Your task to perform on an android device: delete a single message in the gmail app Image 0: 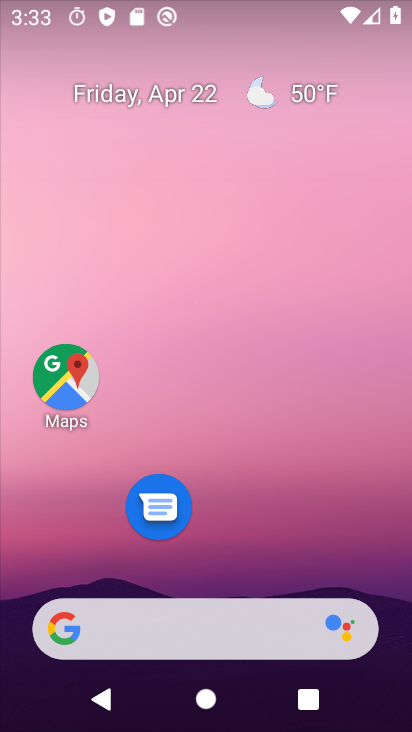
Step 0: drag from (136, 442) to (205, 119)
Your task to perform on an android device: delete a single message in the gmail app Image 1: 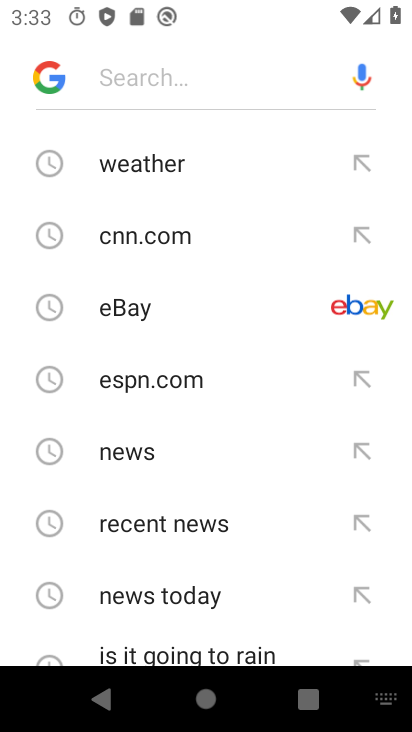
Step 1: press home button
Your task to perform on an android device: delete a single message in the gmail app Image 2: 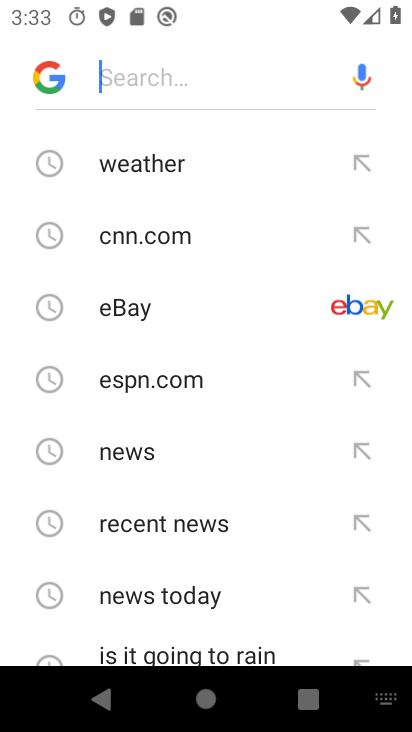
Step 2: press home button
Your task to perform on an android device: delete a single message in the gmail app Image 3: 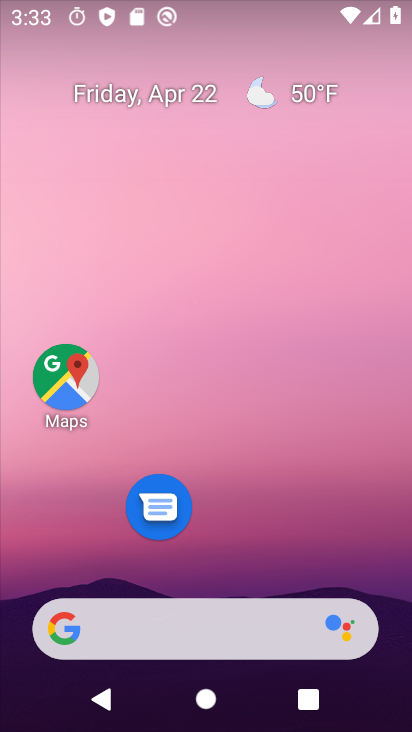
Step 3: drag from (172, 552) to (271, 110)
Your task to perform on an android device: delete a single message in the gmail app Image 4: 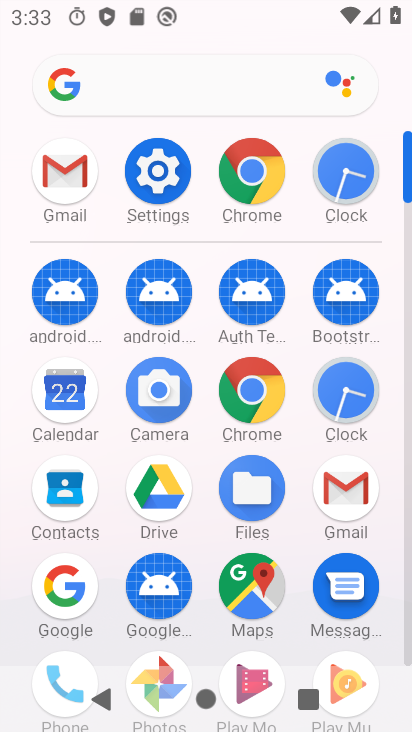
Step 4: click (64, 171)
Your task to perform on an android device: delete a single message in the gmail app Image 5: 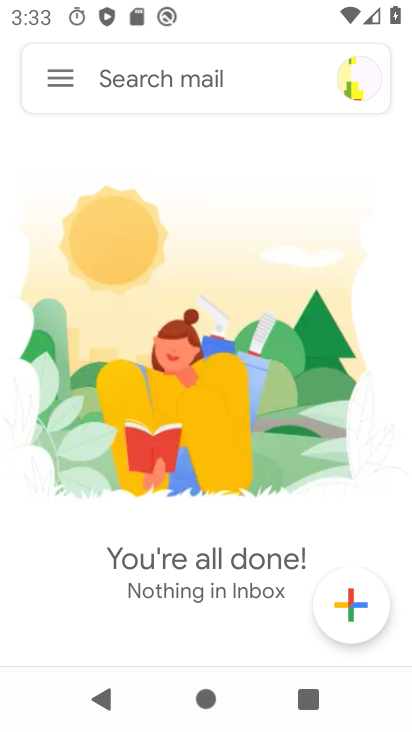
Step 5: click (60, 68)
Your task to perform on an android device: delete a single message in the gmail app Image 6: 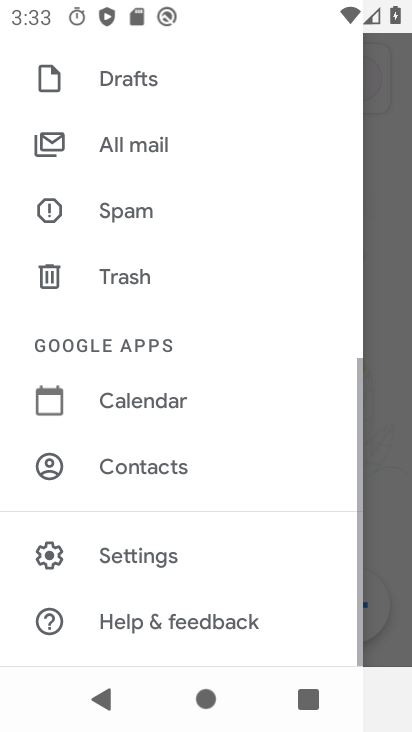
Step 6: click (149, 137)
Your task to perform on an android device: delete a single message in the gmail app Image 7: 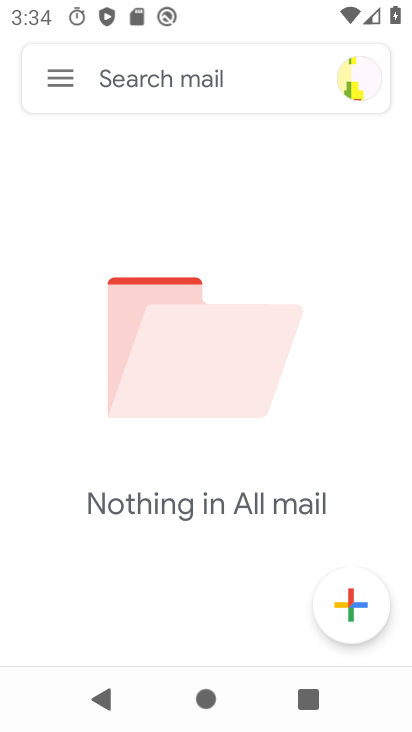
Step 7: task complete